Your task to perform on an android device: turn on notifications settings in the gmail app Image 0: 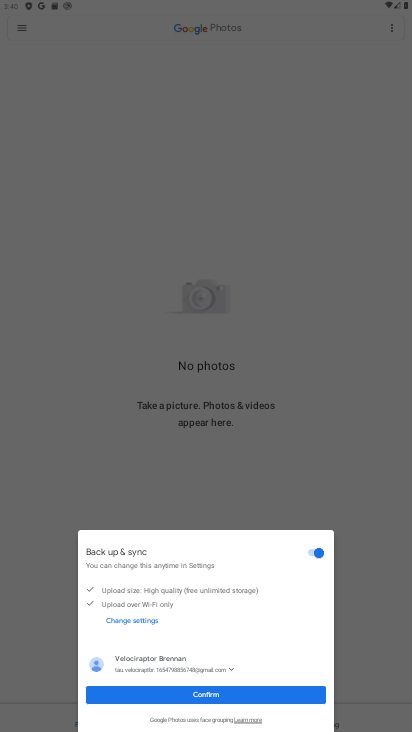
Step 0: press home button
Your task to perform on an android device: turn on notifications settings in the gmail app Image 1: 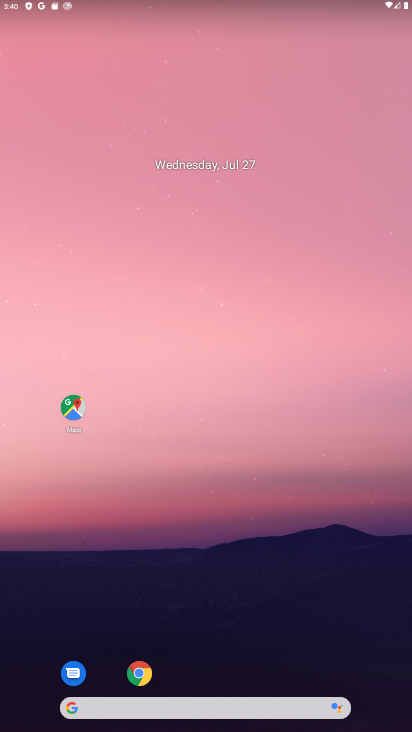
Step 1: drag from (233, 675) to (264, 116)
Your task to perform on an android device: turn on notifications settings in the gmail app Image 2: 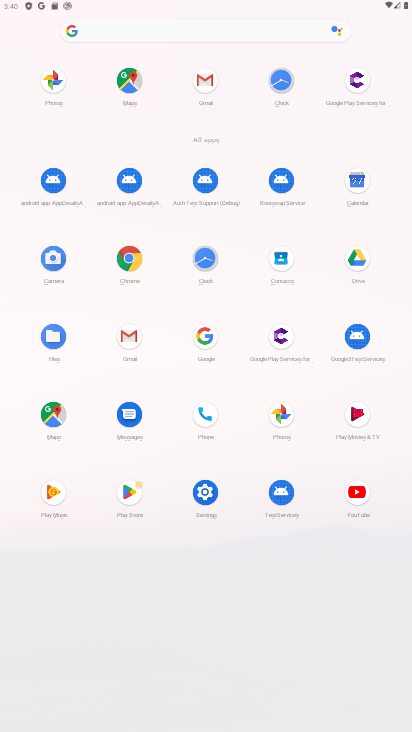
Step 2: click (209, 86)
Your task to perform on an android device: turn on notifications settings in the gmail app Image 3: 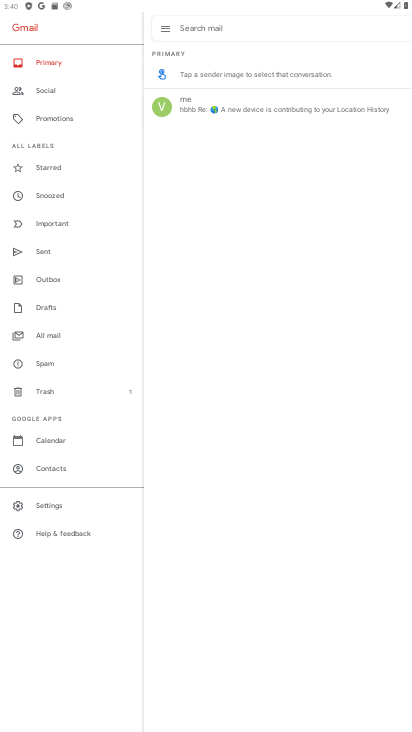
Step 3: click (23, 515)
Your task to perform on an android device: turn on notifications settings in the gmail app Image 4: 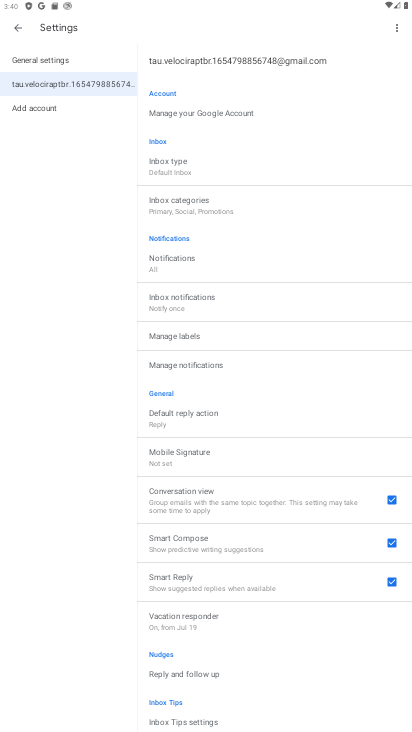
Step 4: click (241, 363)
Your task to perform on an android device: turn on notifications settings in the gmail app Image 5: 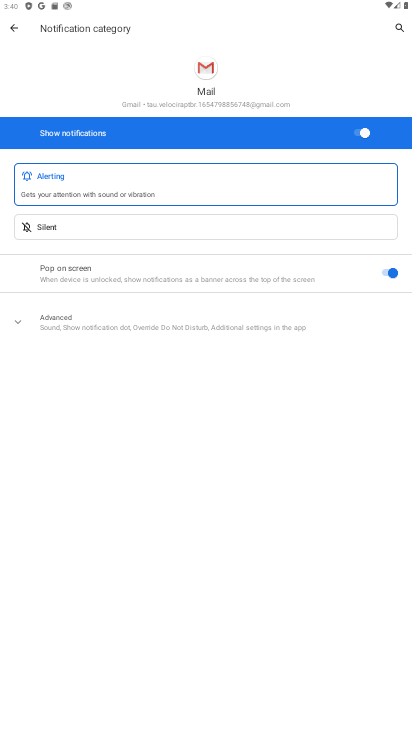
Step 5: task complete